Your task to perform on an android device: open wifi settings Image 0: 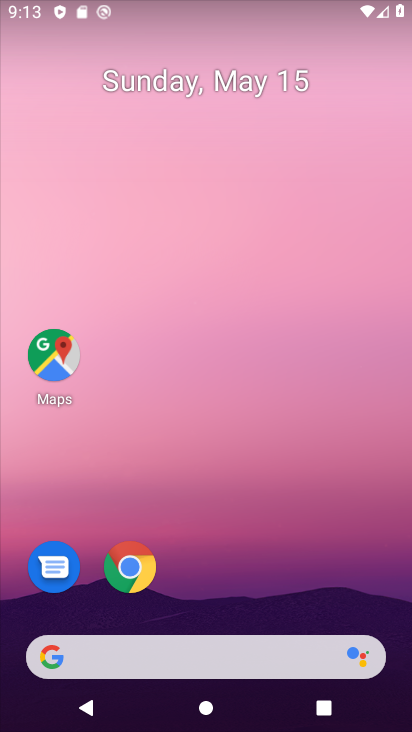
Step 0: drag from (320, 5) to (275, 361)
Your task to perform on an android device: open wifi settings Image 1: 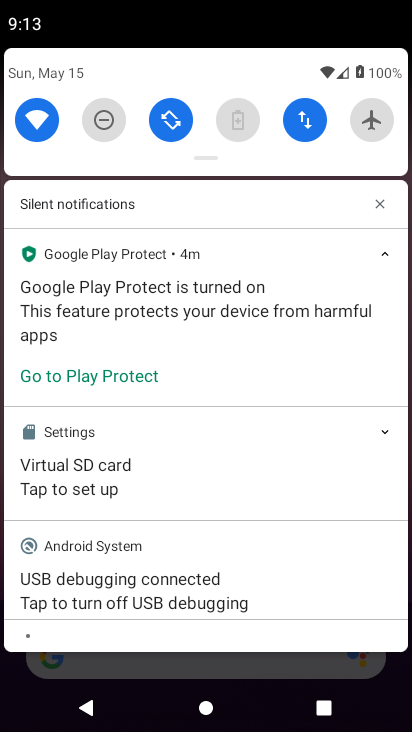
Step 1: click (41, 125)
Your task to perform on an android device: open wifi settings Image 2: 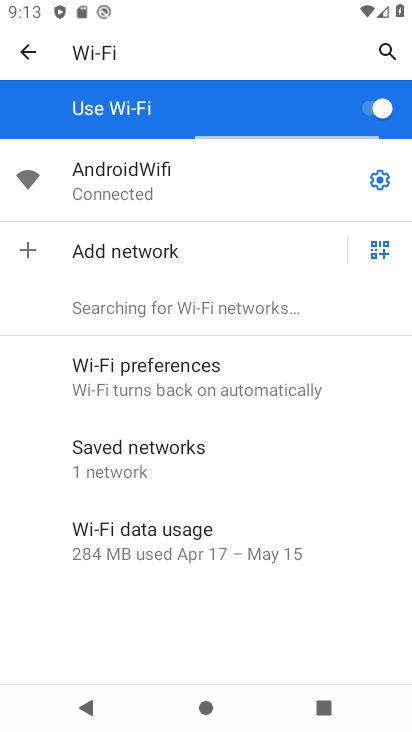
Step 2: task complete